Your task to perform on an android device: turn on javascript in the chrome app Image 0: 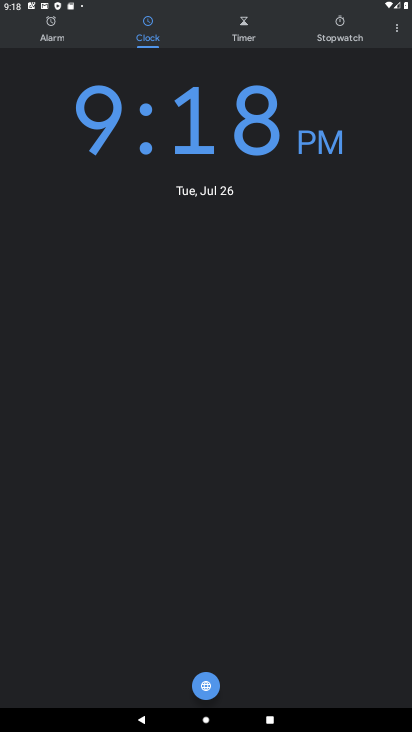
Step 0: press home button
Your task to perform on an android device: turn on javascript in the chrome app Image 1: 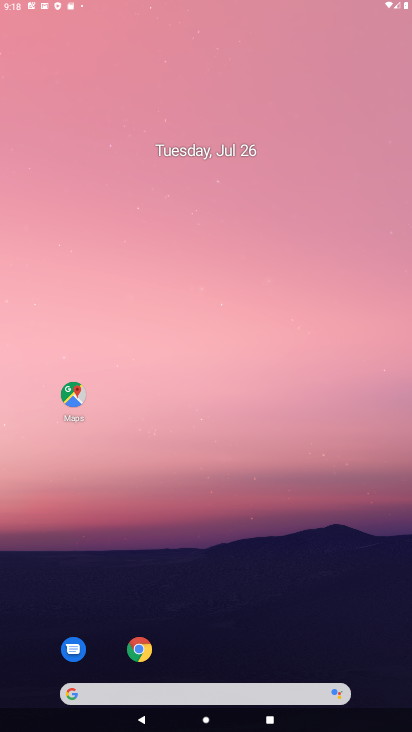
Step 1: drag from (246, 695) to (332, 149)
Your task to perform on an android device: turn on javascript in the chrome app Image 2: 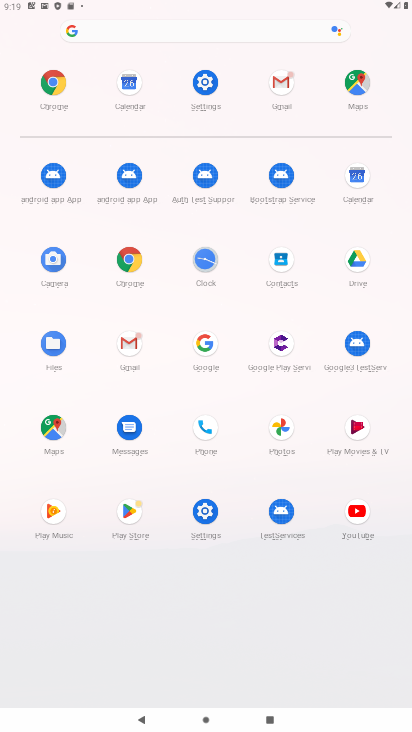
Step 2: click (128, 266)
Your task to perform on an android device: turn on javascript in the chrome app Image 3: 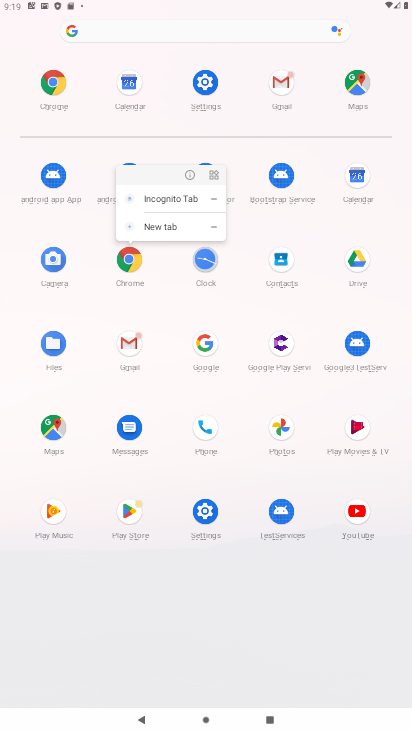
Step 3: click (186, 180)
Your task to perform on an android device: turn on javascript in the chrome app Image 4: 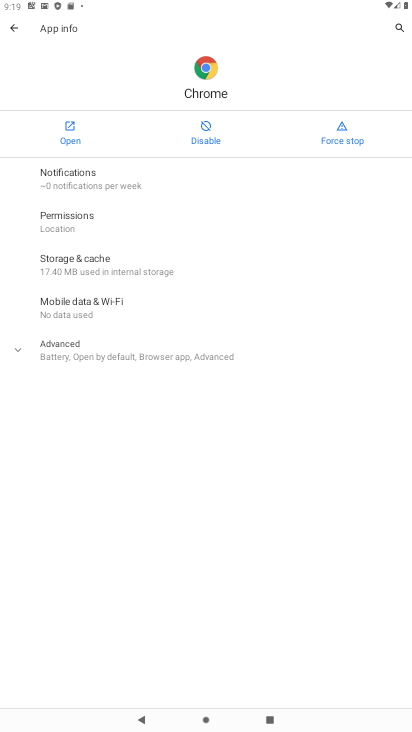
Step 4: click (66, 132)
Your task to perform on an android device: turn on javascript in the chrome app Image 5: 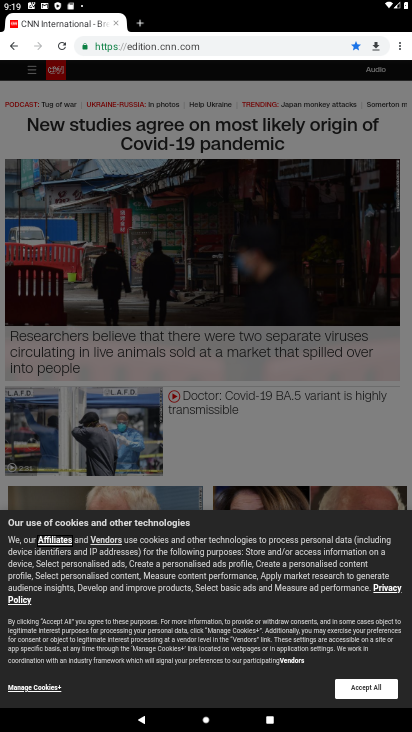
Step 5: drag from (400, 47) to (316, 290)
Your task to perform on an android device: turn on javascript in the chrome app Image 6: 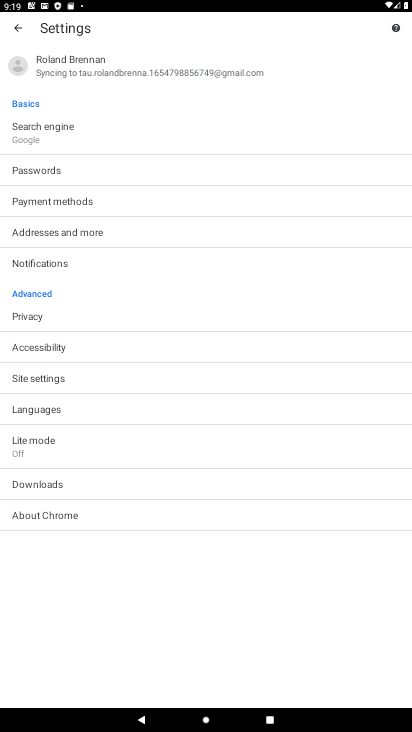
Step 6: click (63, 376)
Your task to perform on an android device: turn on javascript in the chrome app Image 7: 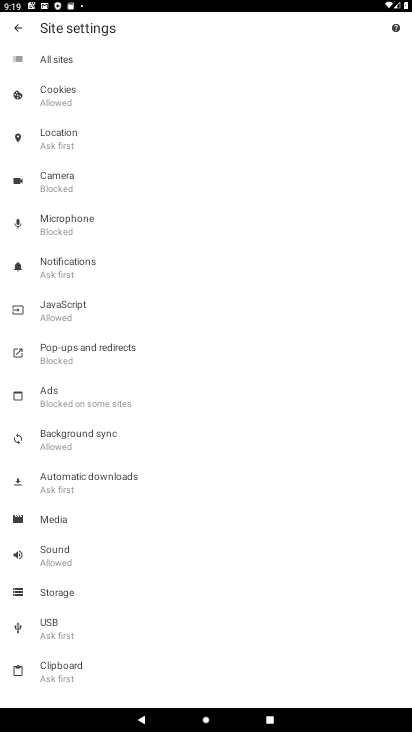
Step 7: click (92, 325)
Your task to perform on an android device: turn on javascript in the chrome app Image 8: 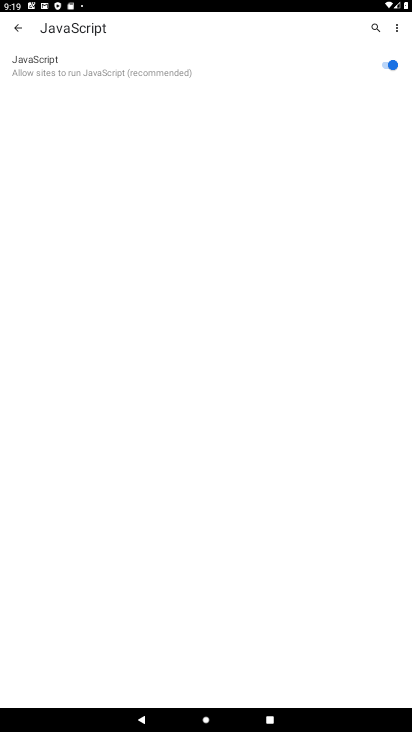
Step 8: task complete